Your task to perform on an android device: turn off improve location accuracy Image 0: 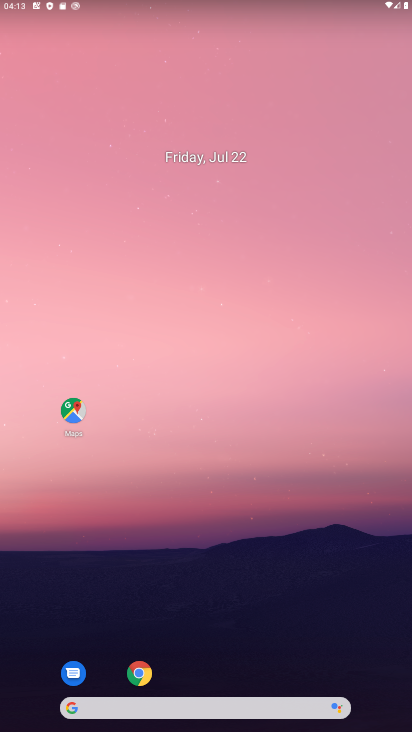
Step 0: drag from (224, 683) to (259, 56)
Your task to perform on an android device: turn off improve location accuracy Image 1: 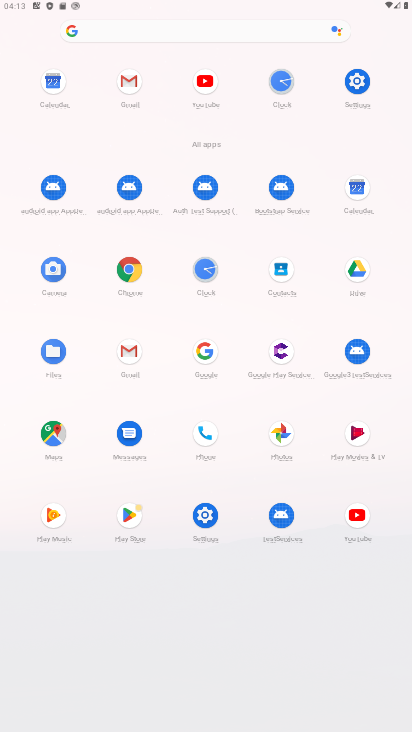
Step 1: click (352, 77)
Your task to perform on an android device: turn off improve location accuracy Image 2: 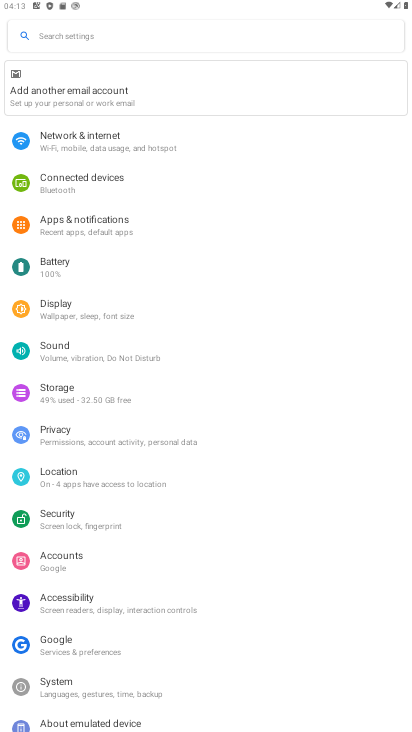
Step 2: click (84, 466)
Your task to perform on an android device: turn off improve location accuracy Image 3: 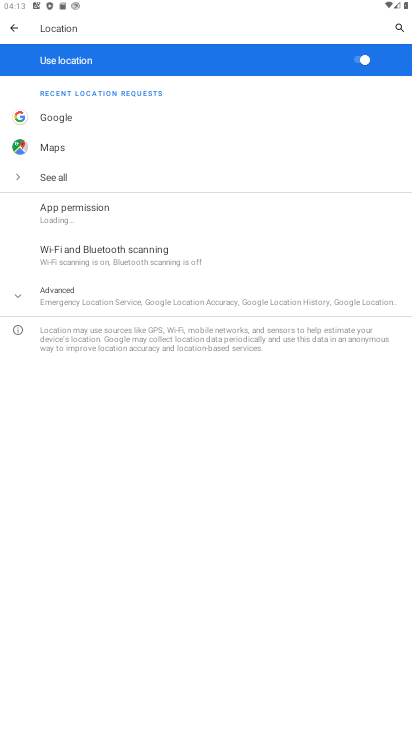
Step 3: click (16, 296)
Your task to perform on an android device: turn off improve location accuracy Image 4: 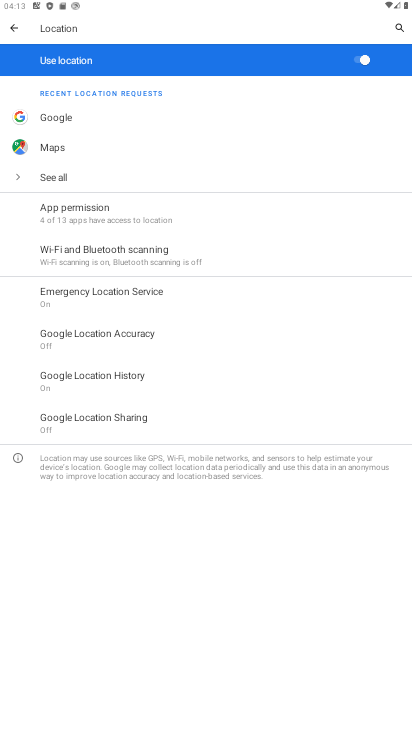
Step 4: click (161, 329)
Your task to perform on an android device: turn off improve location accuracy Image 5: 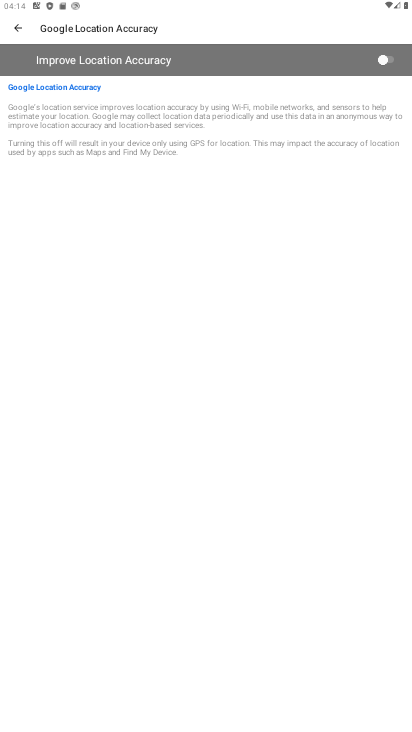
Step 5: task complete